Your task to perform on an android device: toggle wifi Image 0: 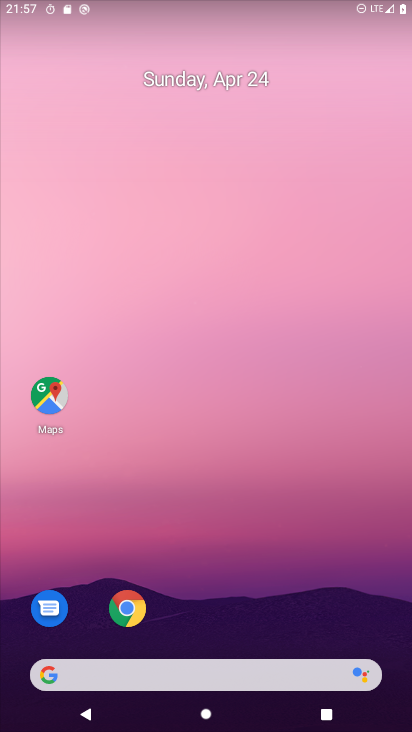
Step 0: drag from (334, 512) to (354, 0)
Your task to perform on an android device: toggle wifi Image 1: 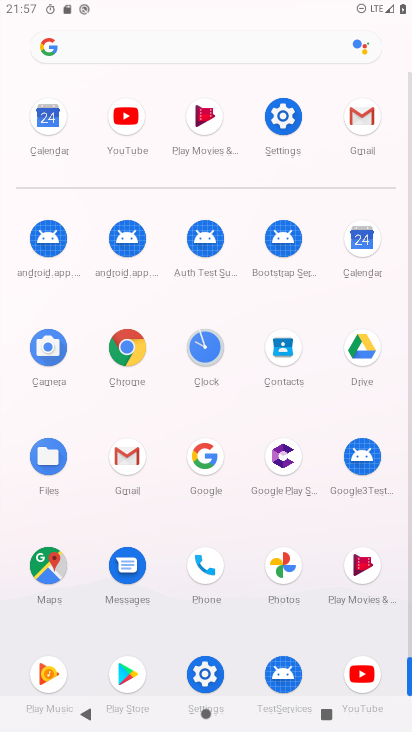
Step 1: click (286, 118)
Your task to perform on an android device: toggle wifi Image 2: 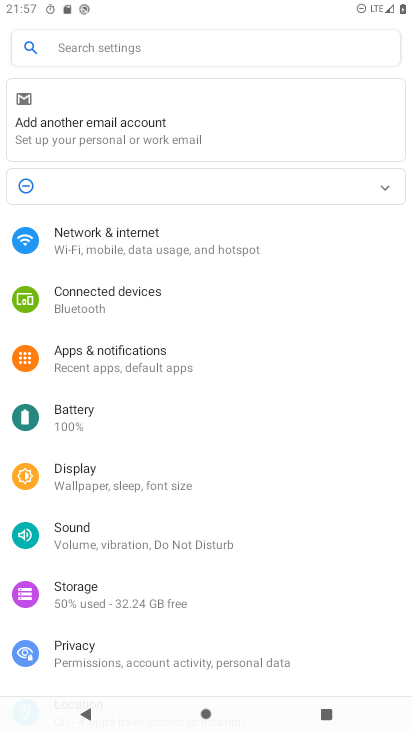
Step 2: click (210, 240)
Your task to perform on an android device: toggle wifi Image 3: 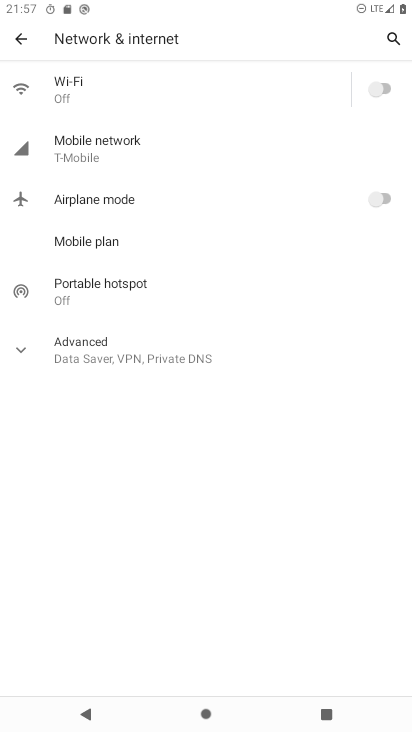
Step 3: click (384, 81)
Your task to perform on an android device: toggle wifi Image 4: 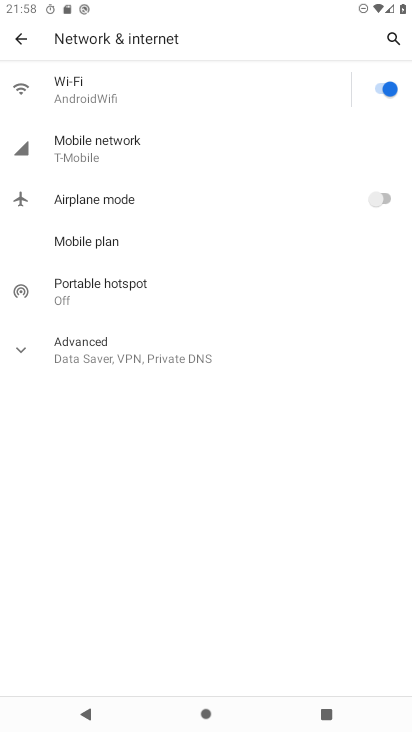
Step 4: task complete